Your task to perform on an android device: delete location history Image 0: 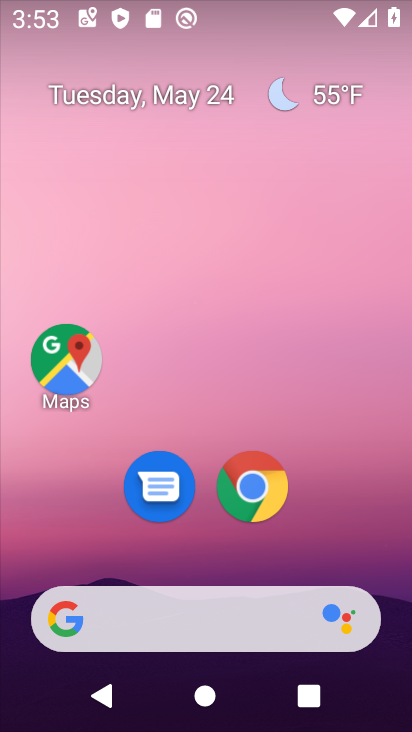
Step 0: drag from (348, 515) to (298, 121)
Your task to perform on an android device: delete location history Image 1: 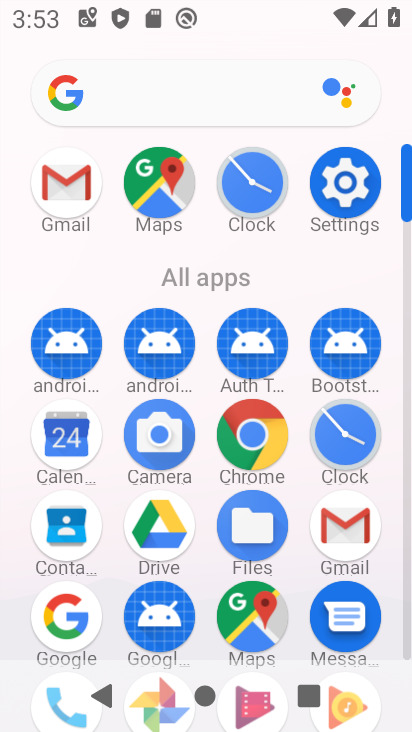
Step 1: click (346, 181)
Your task to perform on an android device: delete location history Image 2: 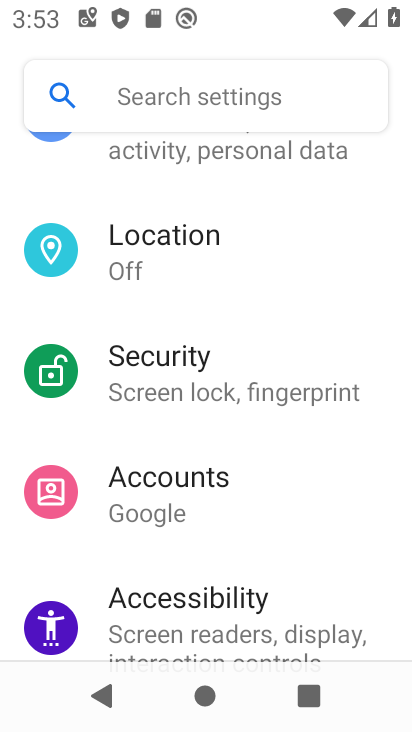
Step 2: click (231, 241)
Your task to perform on an android device: delete location history Image 3: 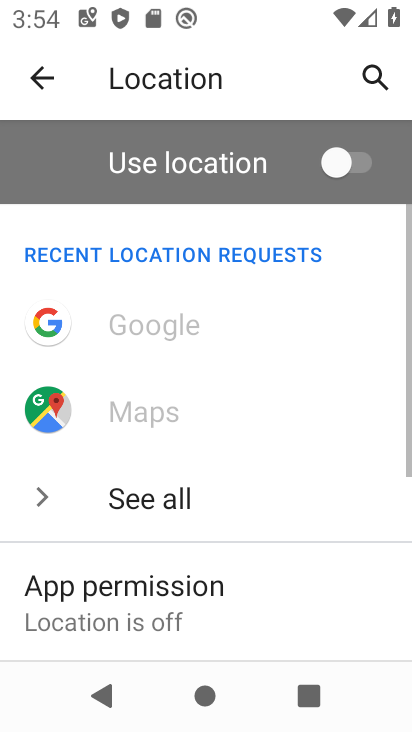
Step 3: drag from (278, 543) to (279, 203)
Your task to perform on an android device: delete location history Image 4: 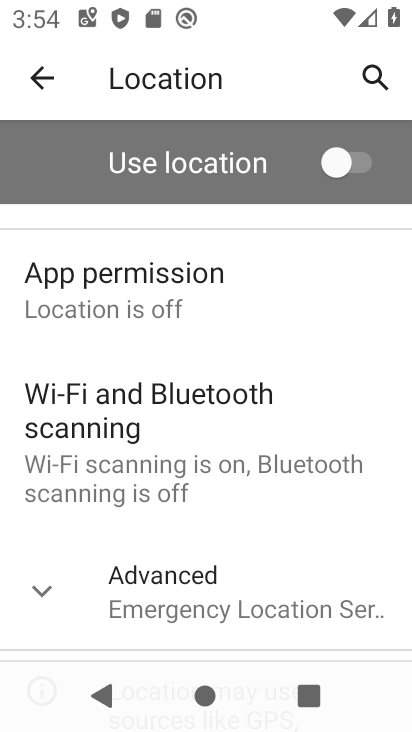
Step 4: drag from (256, 557) to (250, 227)
Your task to perform on an android device: delete location history Image 5: 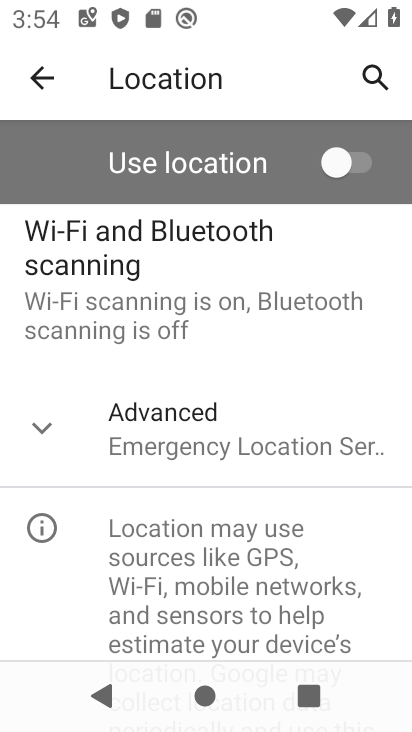
Step 5: click (219, 440)
Your task to perform on an android device: delete location history Image 6: 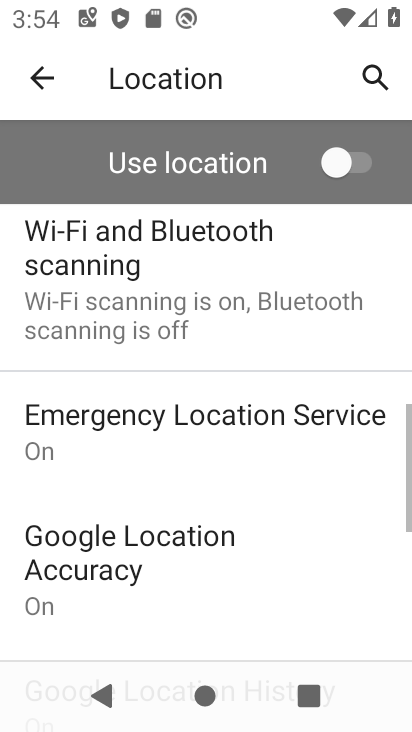
Step 6: drag from (236, 613) to (263, 325)
Your task to perform on an android device: delete location history Image 7: 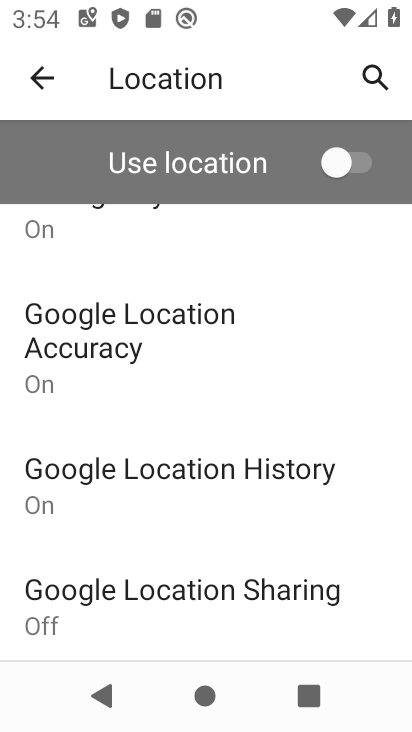
Step 7: click (254, 471)
Your task to perform on an android device: delete location history Image 8: 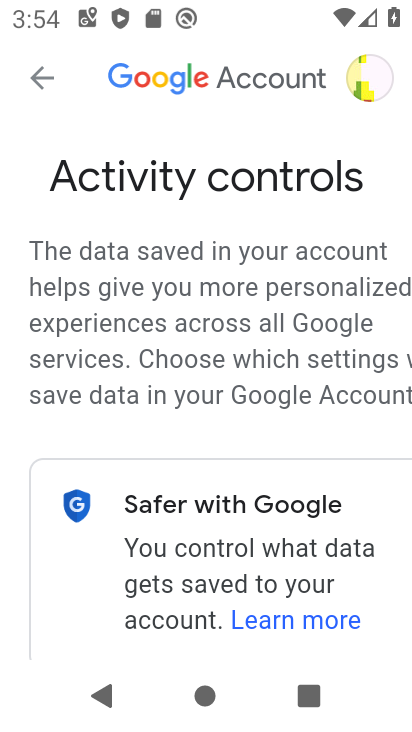
Step 8: drag from (165, 492) to (154, 69)
Your task to perform on an android device: delete location history Image 9: 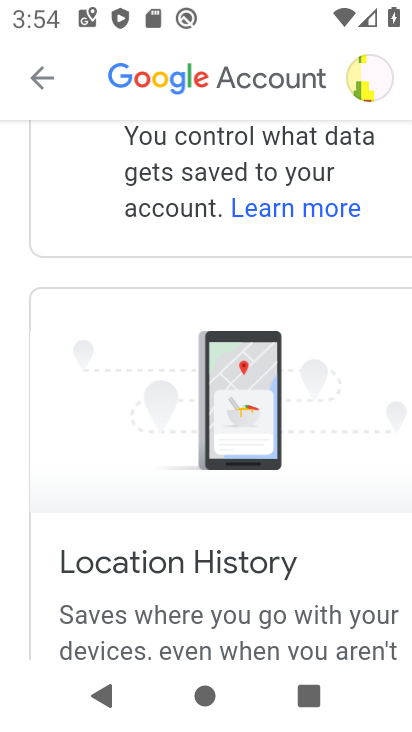
Step 9: drag from (127, 465) to (183, 158)
Your task to perform on an android device: delete location history Image 10: 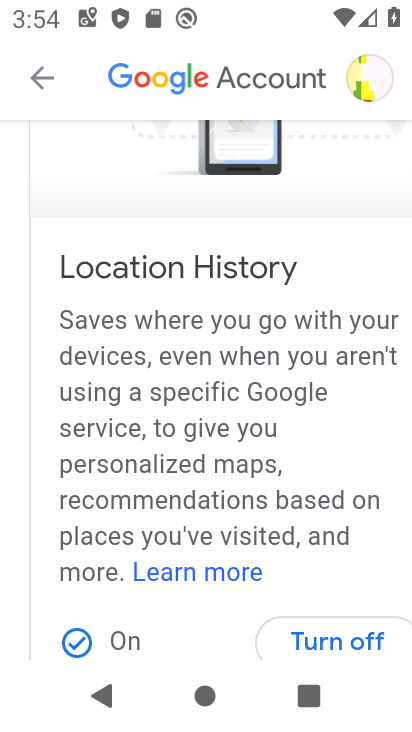
Step 10: drag from (197, 522) to (208, 164)
Your task to perform on an android device: delete location history Image 11: 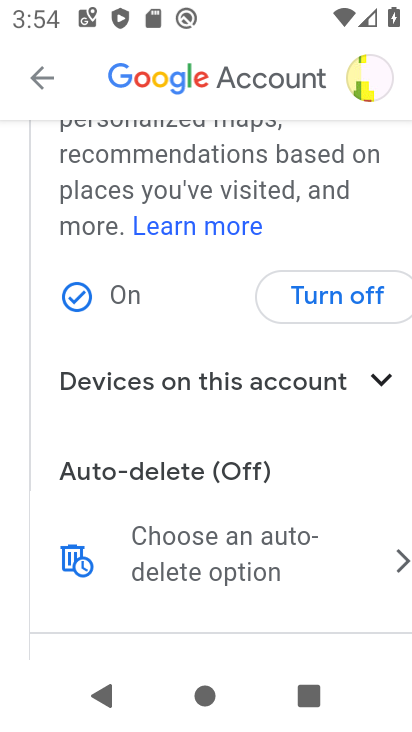
Step 11: click (78, 561)
Your task to perform on an android device: delete location history Image 12: 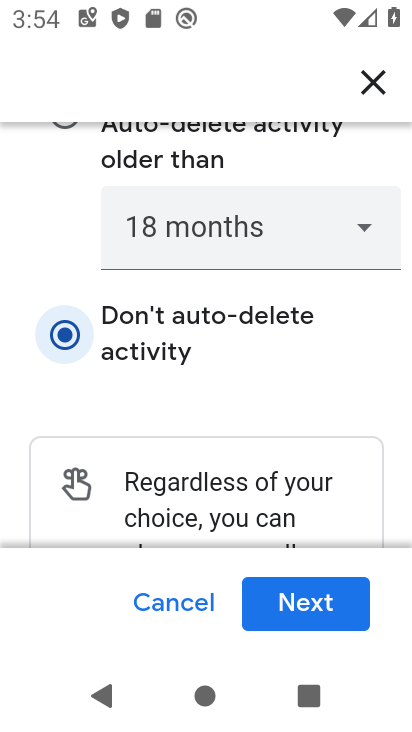
Step 12: click (281, 606)
Your task to perform on an android device: delete location history Image 13: 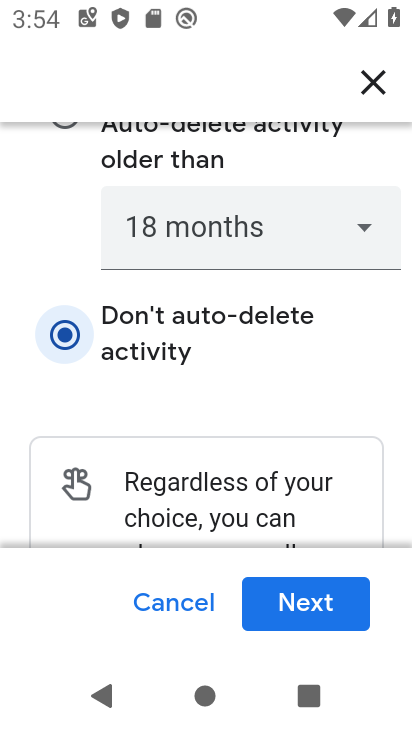
Step 13: click (281, 606)
Your task to perform on an android device: delete location history Image 14: 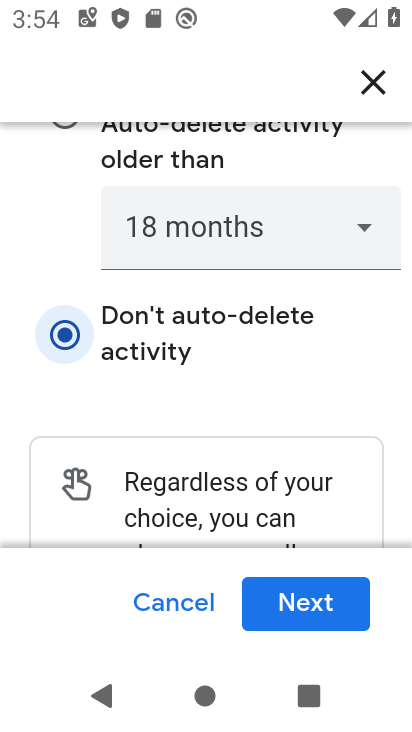
Step 14: click (283, 603)
Your task to perform on an android device: delete location history Image 15: 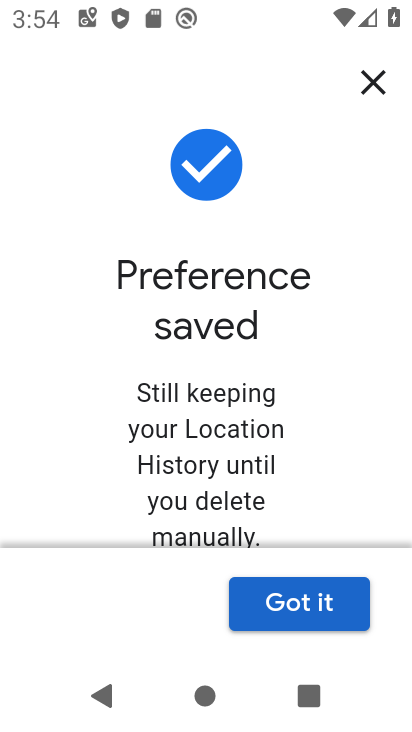
Step 15: click (266, 589)
Your task to perform on an android device: delete location history Image 16: 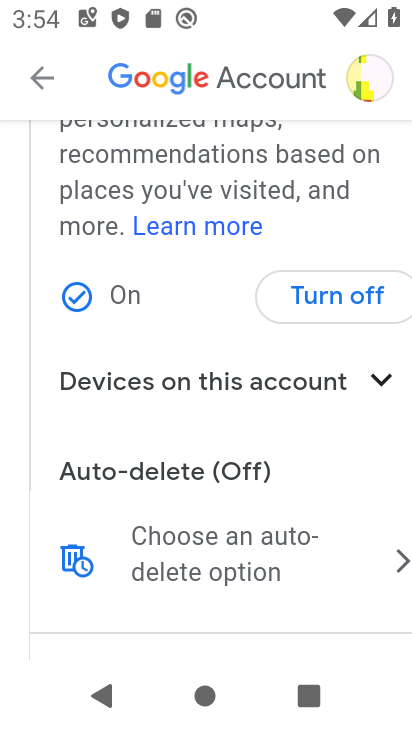
Step 16: task complete